Your task to perform on an android device: Open Yahoo.com Image 0: 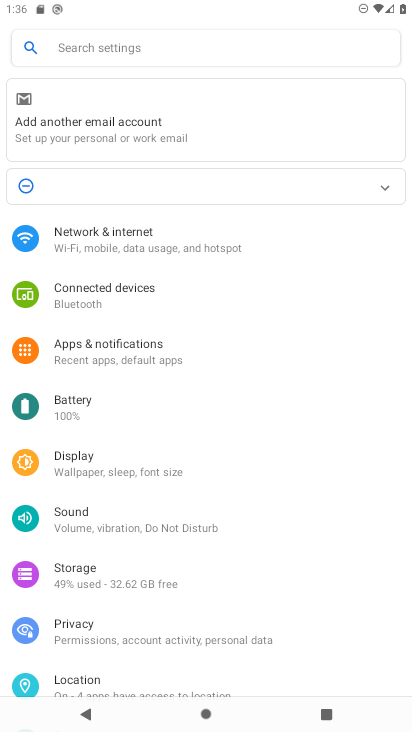
Step 0: press home button
Your task to perform on an android device: Open Yahoo.com Image 1: 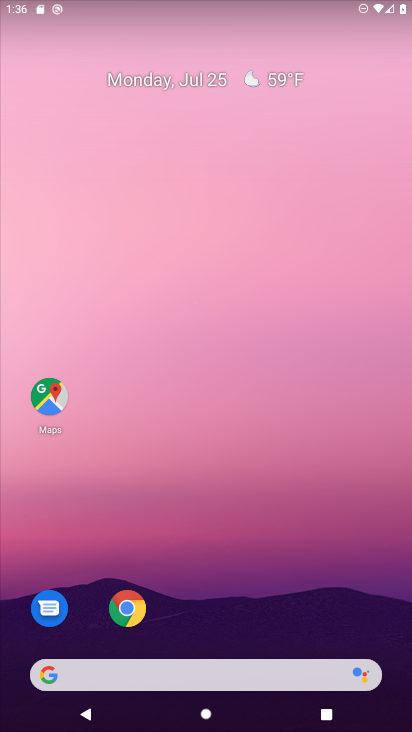
Step 1: click (132, 609)
Your task to perform on an android device: Open Yahoo.com Image 2: 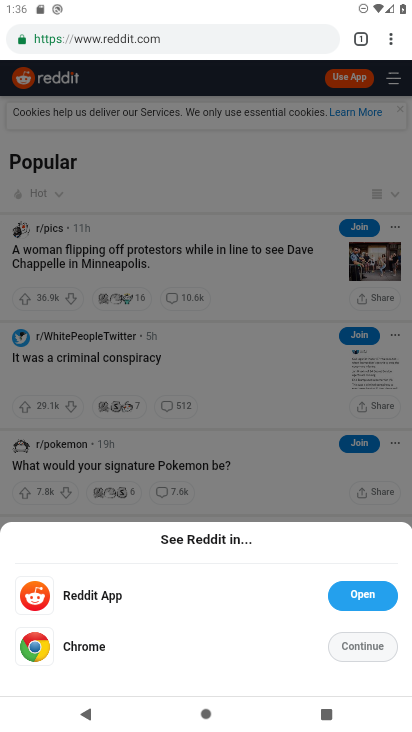
Step 2: click (218, 32)
Your task to perform on an android device: Open Yahoo.com Image 3: 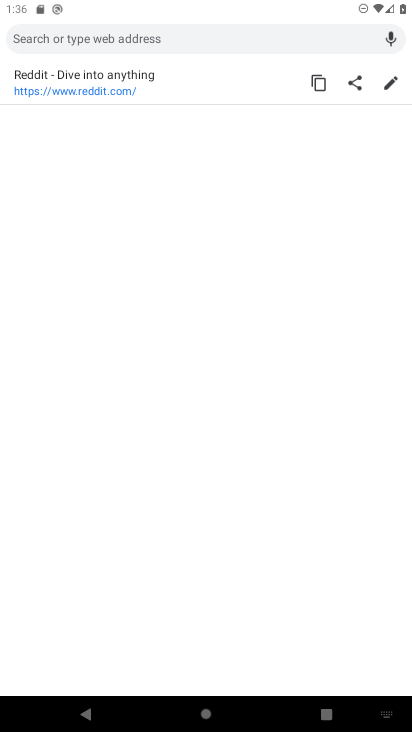
Step 3: type "yahoo.com"
Your task to perform on an android device: Open Yahoo.com Image 4: 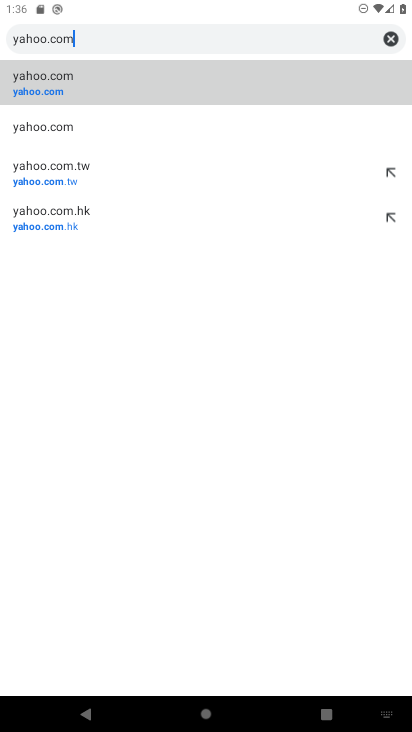
Step 4: click (41, 83)
Your task to perform on an android device: Open Yahoo.com Image 5: 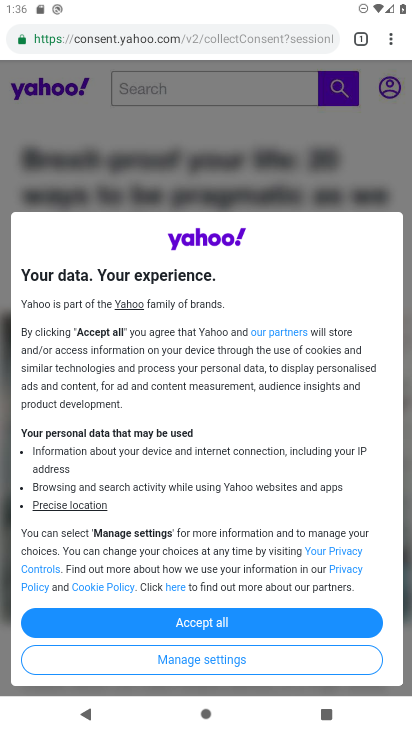
Step 5: click (197, 619)
Your task to perform on an android device: Open Yahoo.com Image 6: 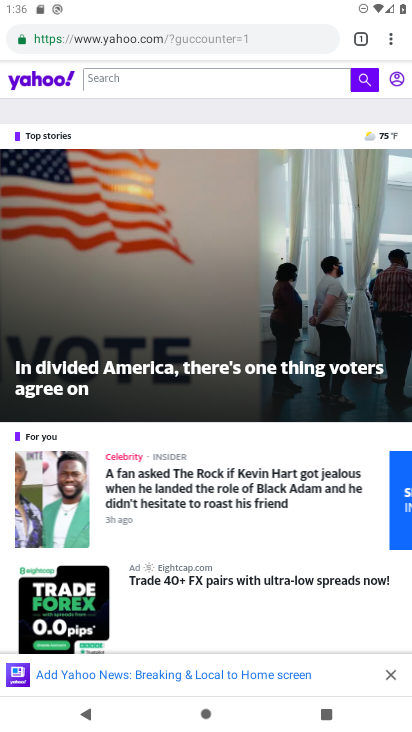
Step 6: task complete